Your task to perform on an android device: snooze an email in the gmail app Image 0: 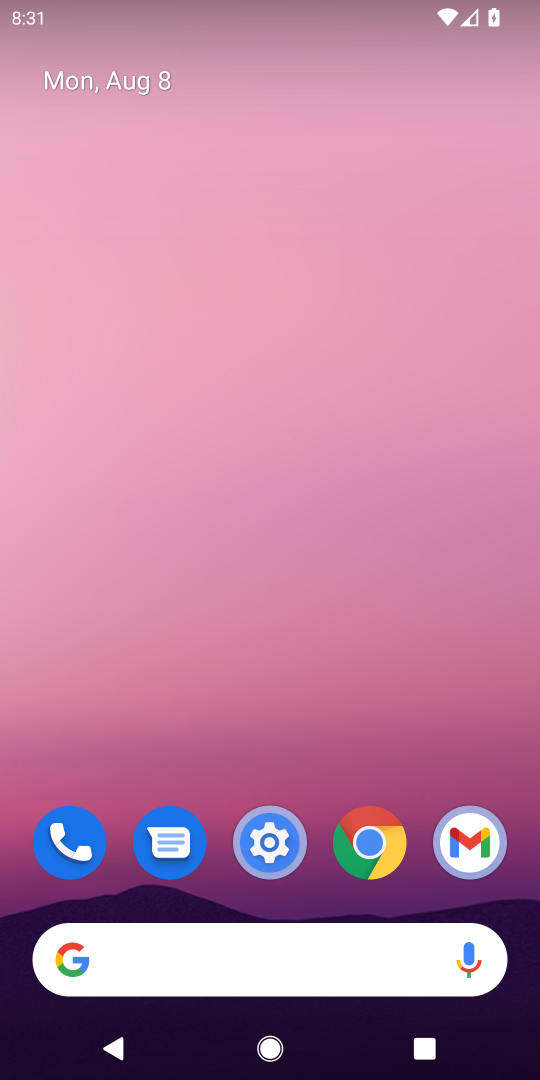
Step 0: click (481, 831)
Your task to perform on an android device: snooze an email in the gmail app Image 1: 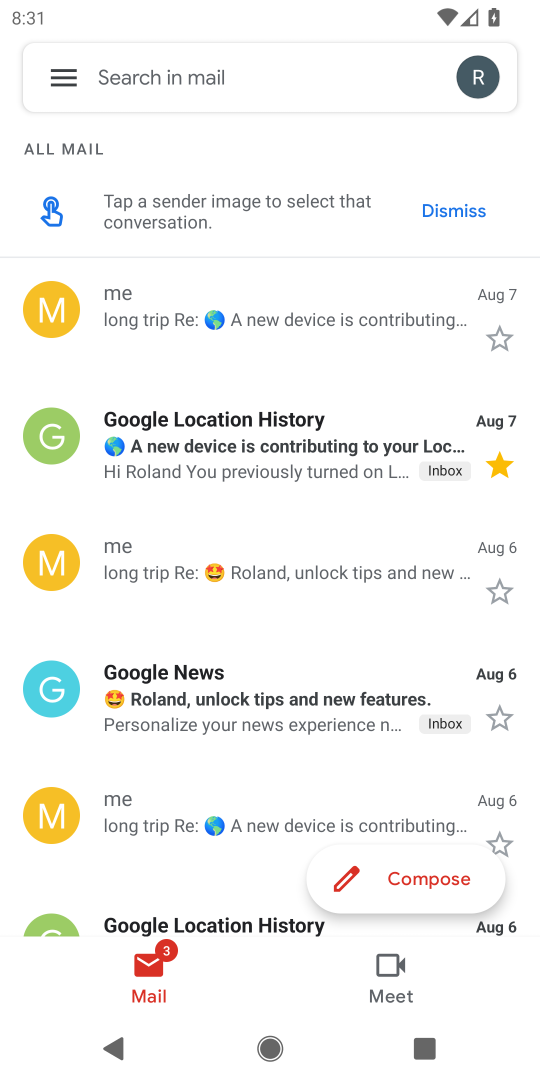
Step 1: click (286, 306)
Your task to perform on an android device: snooze an email in the gmail app Image 2: 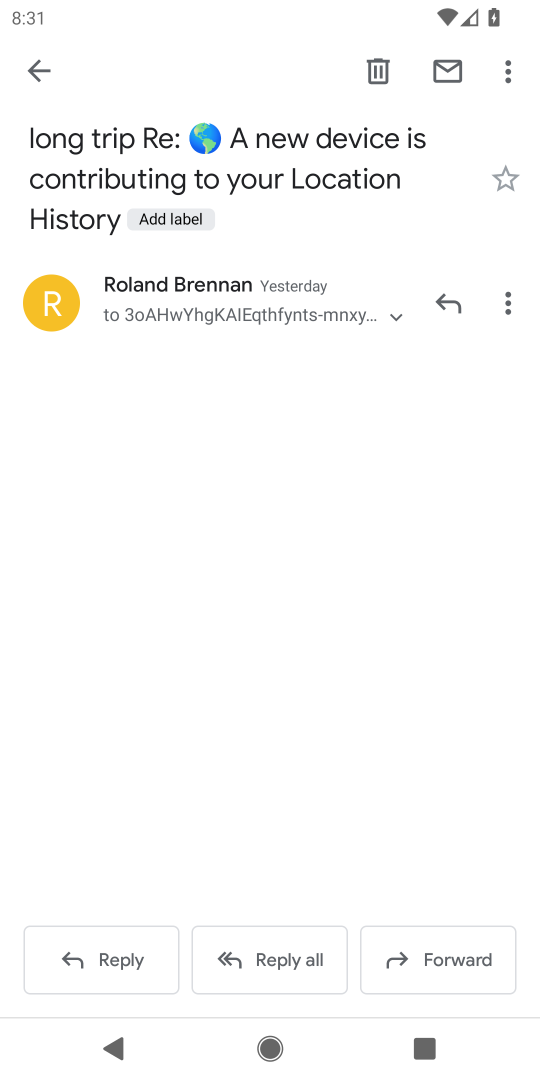
Step 2: click (499, 69)
Your task to perform on an android device: snooze an email in the gmail app Image 3: 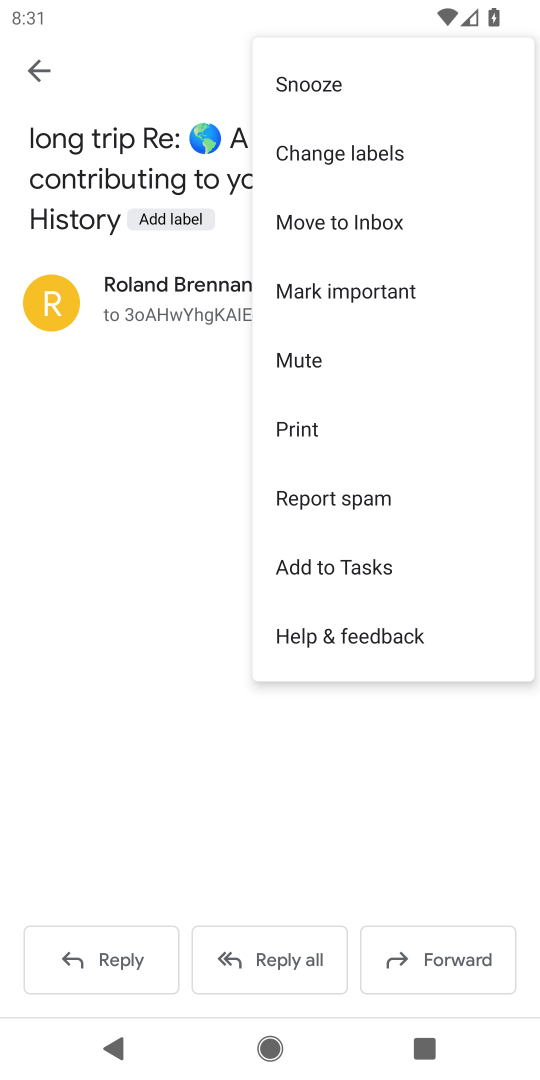
Step 3: click (326, 82)
Your task to perform on an android device: snooze an email in the gmail app Image 4: 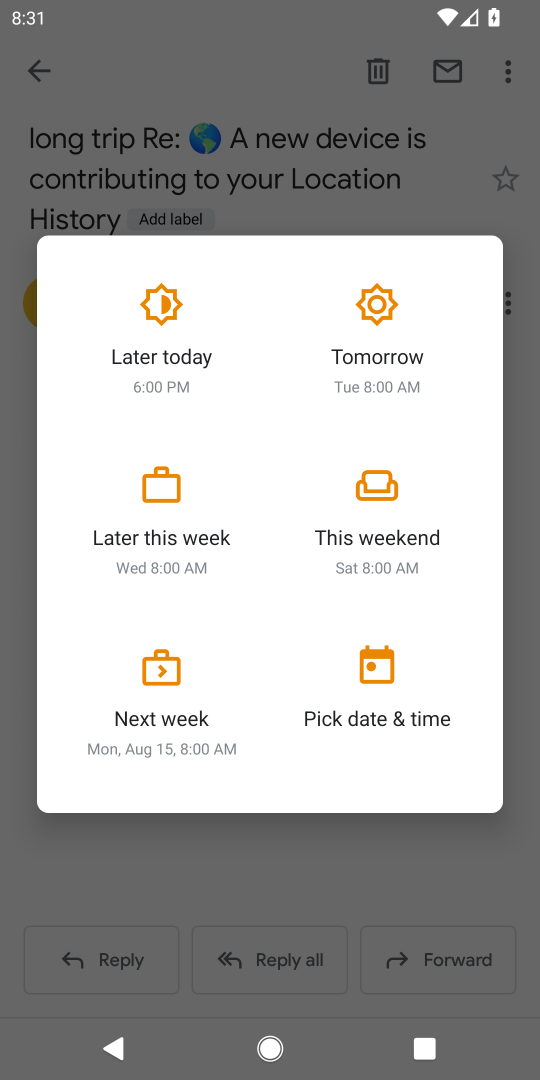
Step 4: click (168, 341)
Your task to perform on an android device: snooze an email in the gmail app Image 5: 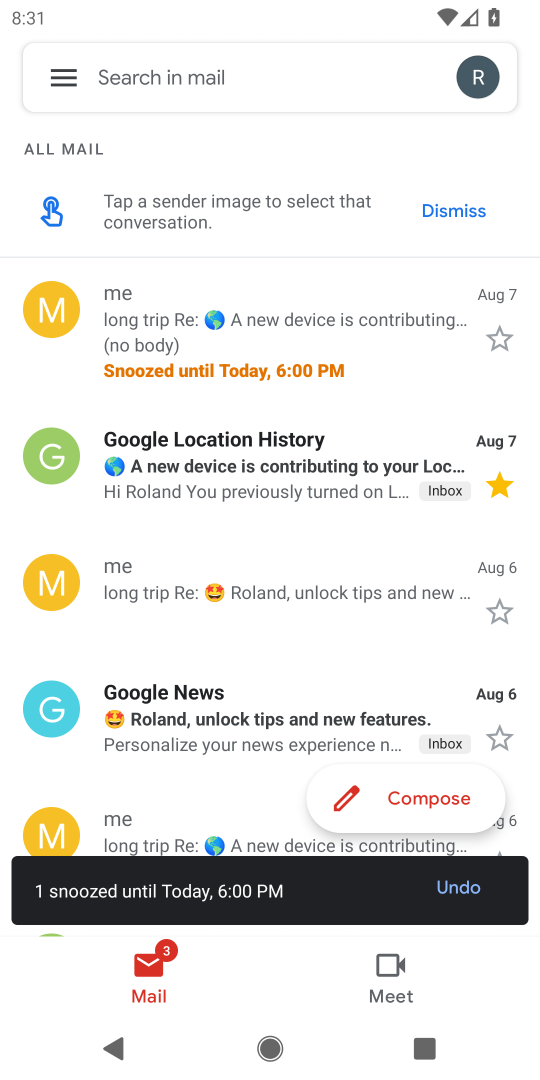
Step 5: task complete